Your task to perform on an android device: How do I get to the nearest Target? Image 0: 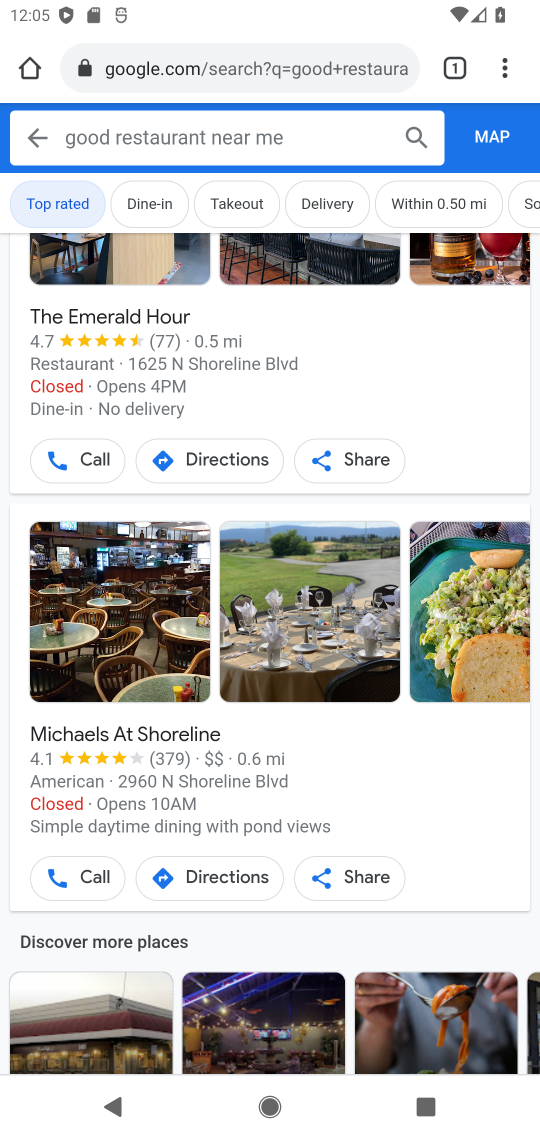
Step 0: click (271, 72)
Your task to perform on an android device: How do I get to the nearest Target? Image 1: 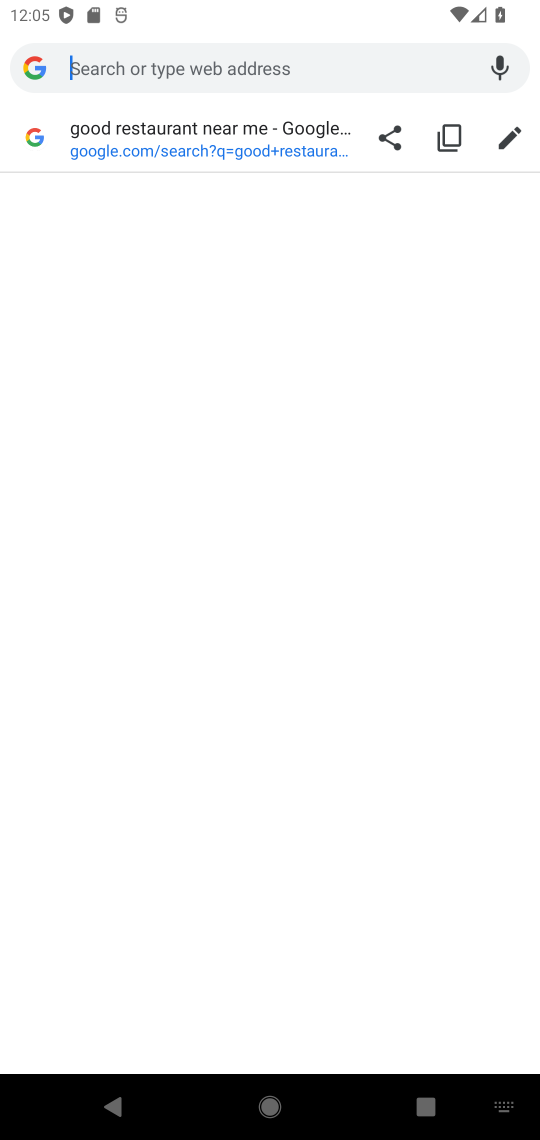
Step 1: type "Target"
Your task to perform on an android device: How do I get to the nearest Target? Image 2: 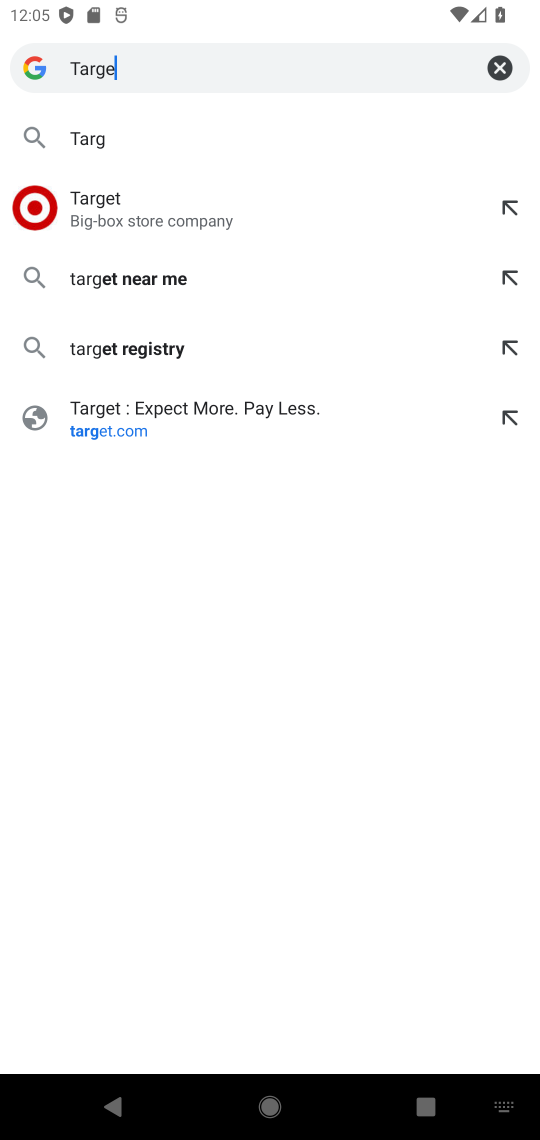
Step 2: type ""
Your task to perform on an android device: How do I get to the nearest Target? Image 3: 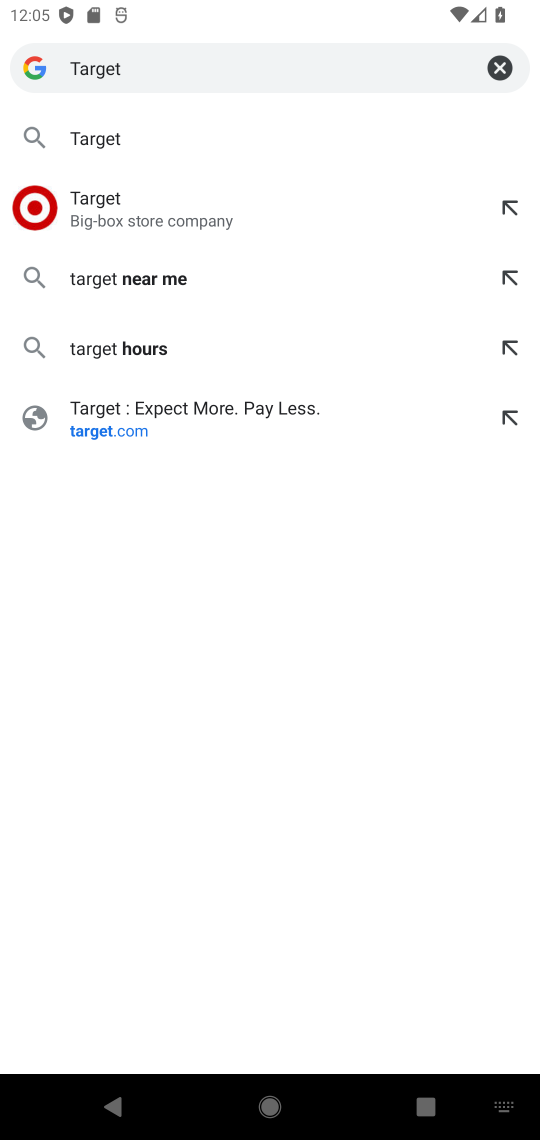
Step 3: click (281, 218)
Your task to perform on an android device: How do I get to the nearest Target? Image 4: 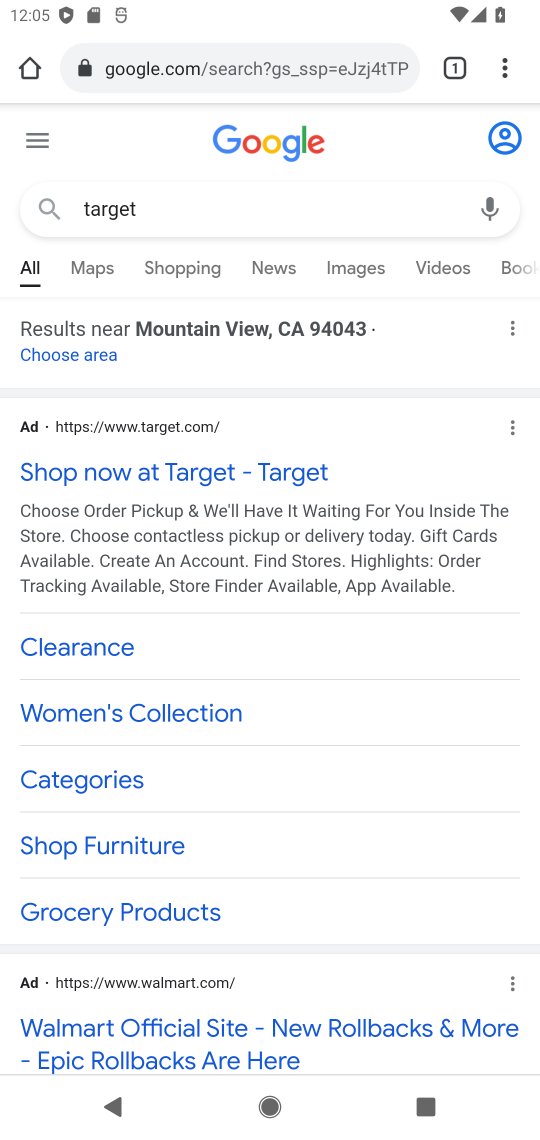
Step 4: click (264, 463)
Your task to perform on an android device: How do I get to the nearest Target? Image 5: 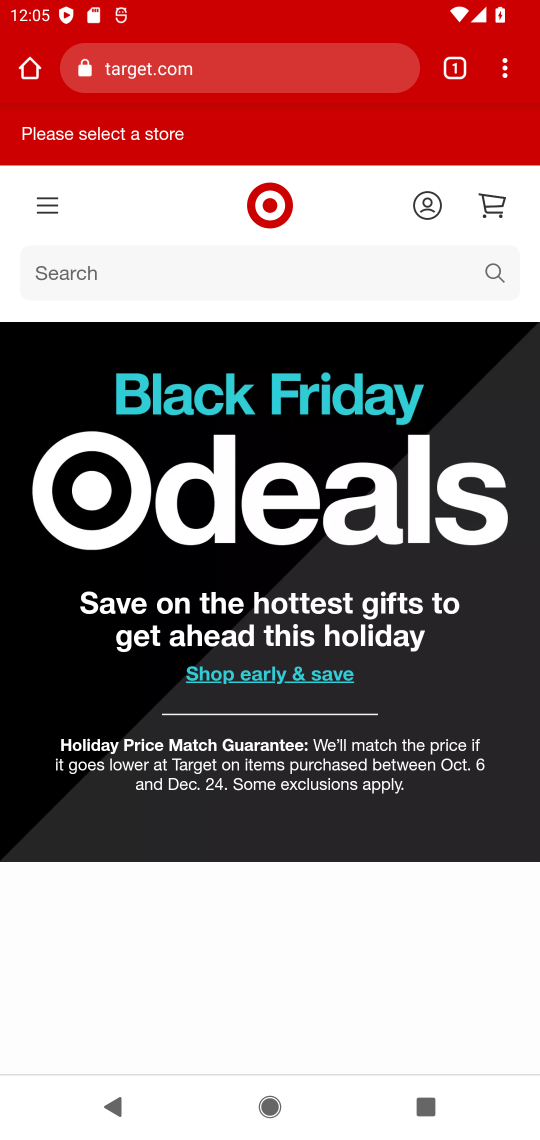
Step 5: click (31, 198)
Your task to perform on an android device: How do I get to the nearest Target? Image 6: 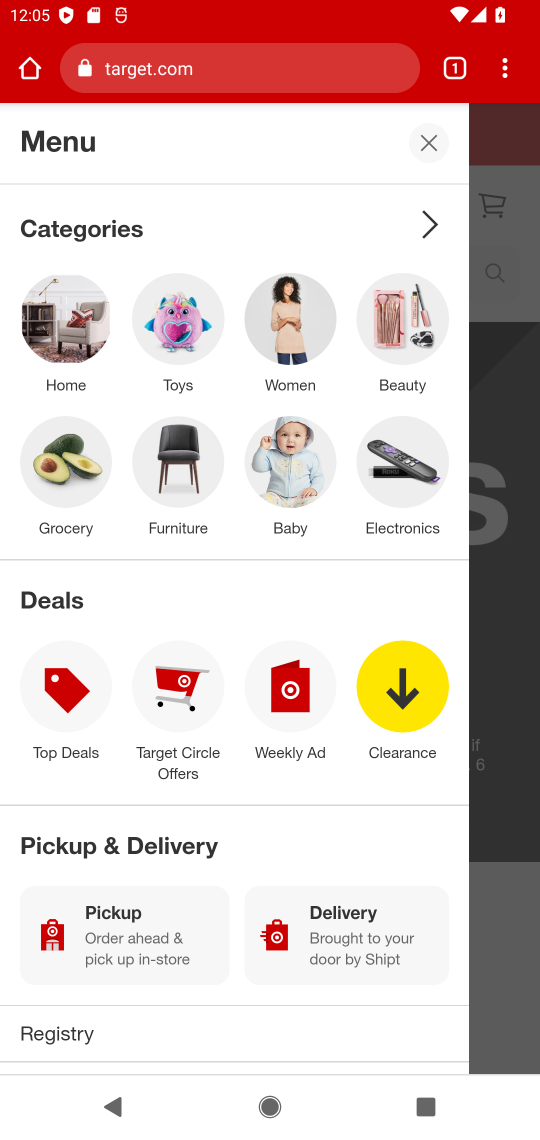
Step 6: drag from (246, 905) to (200, 366)
Your task to perform on an android device: How do I get to the nearest Target? Image 7: 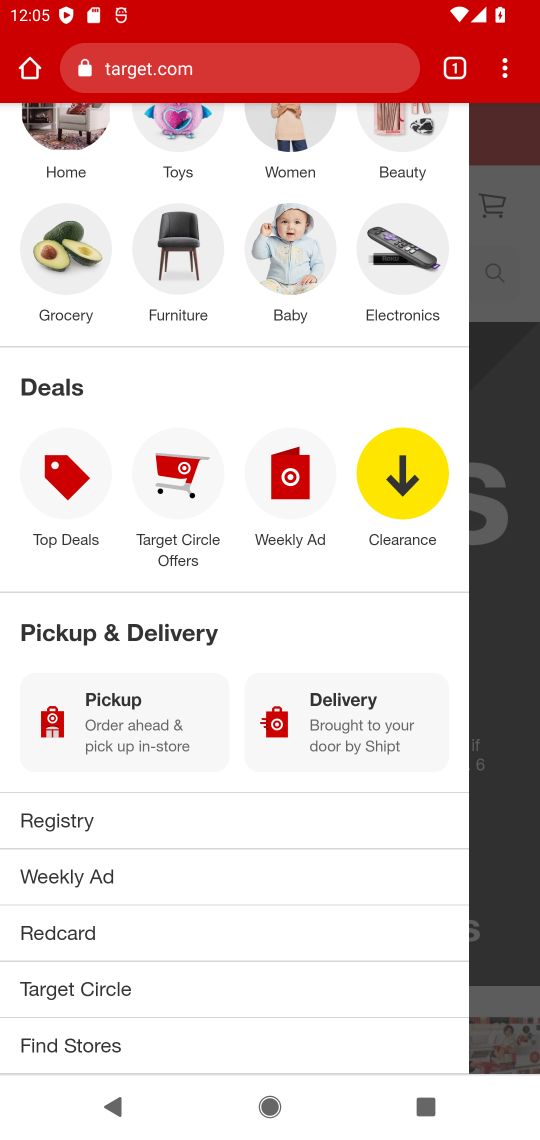
Step 7: click (92, 1041)
Your task to perform on an android device: How do I get to the nearest Target? Image 8: 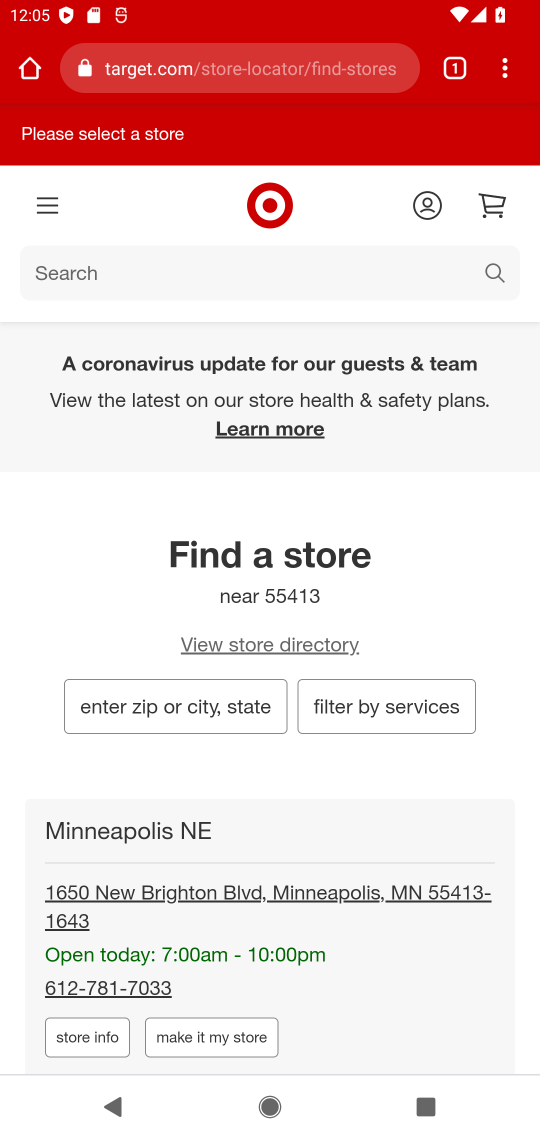
Step 8: click (197, 719)
Your task to perform on an android device: How do I get to the nearest Target? Image 9: 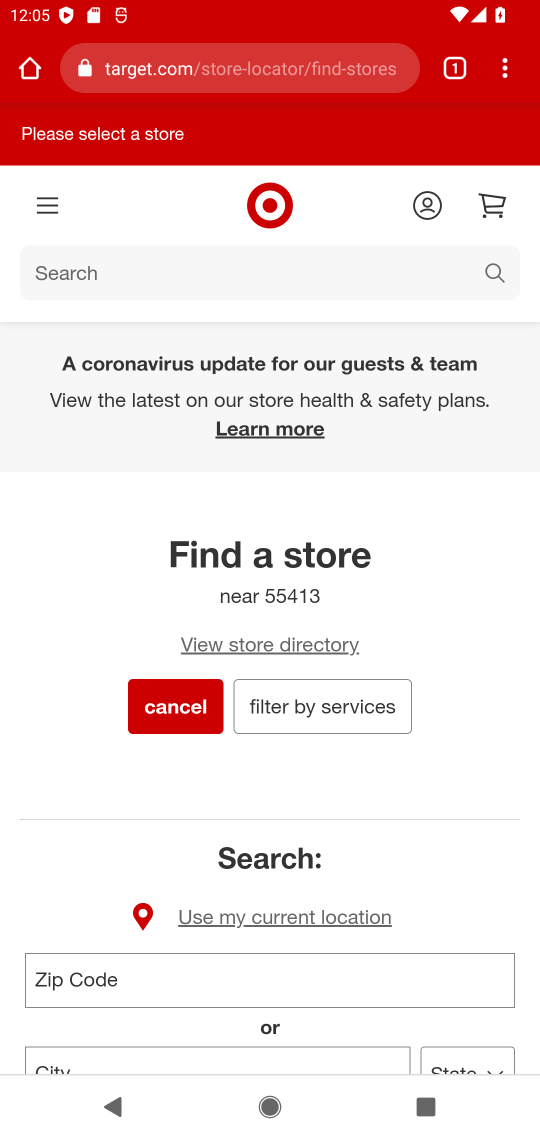
Step 9: click (326, 927)
Your task to perform on an android device: How do I get to the nearest Target? Image 10: 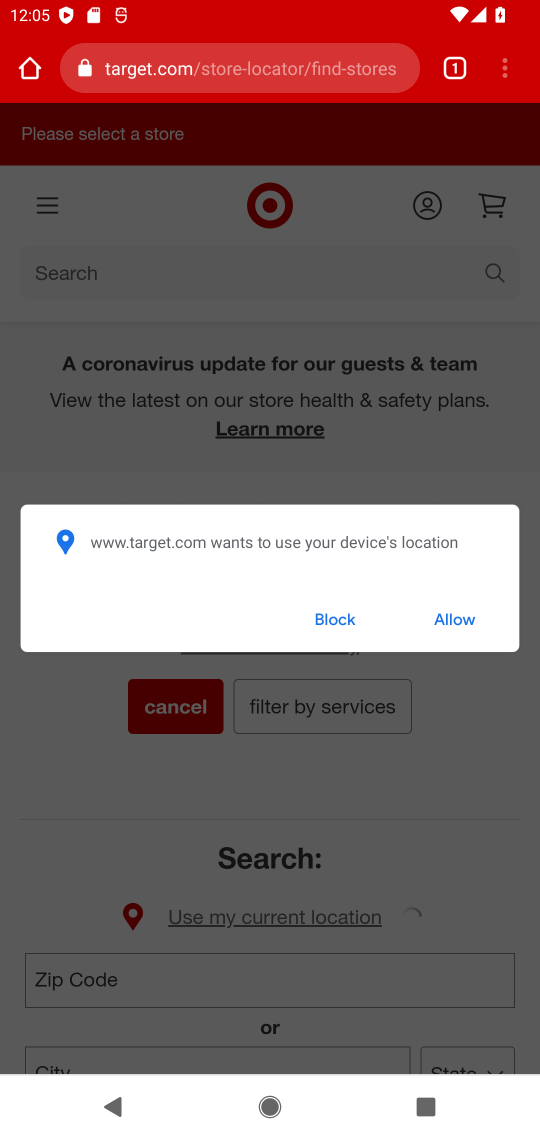
Step 10: click (453, 614)
Your task to perform on an android device: How do I get to the nearest Target? Image 11: 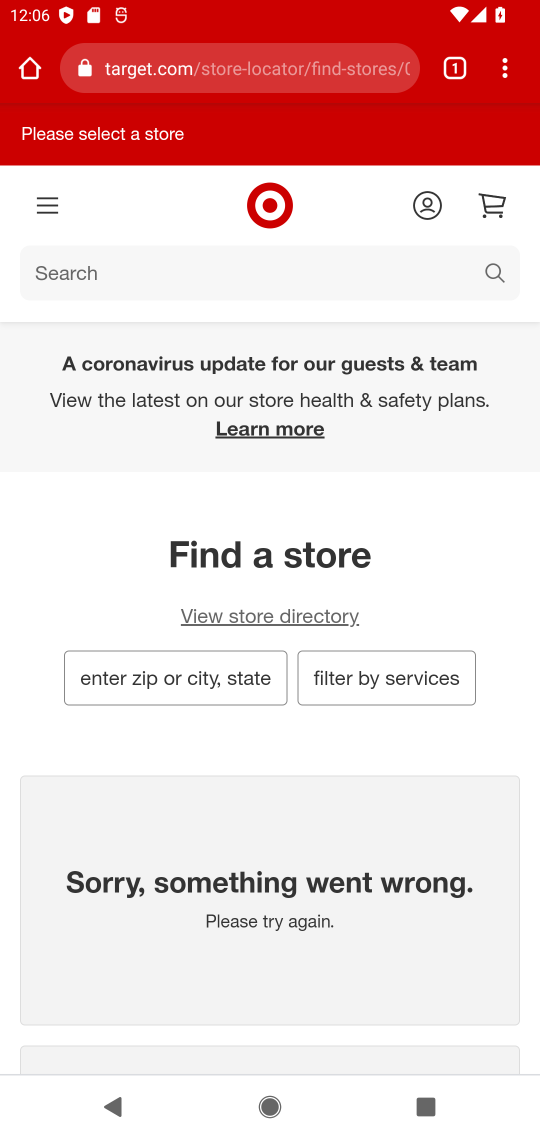
Step 11: task complete